Your task to perform on an android device: Search for vegetarian restaurants on Maps Image 0: 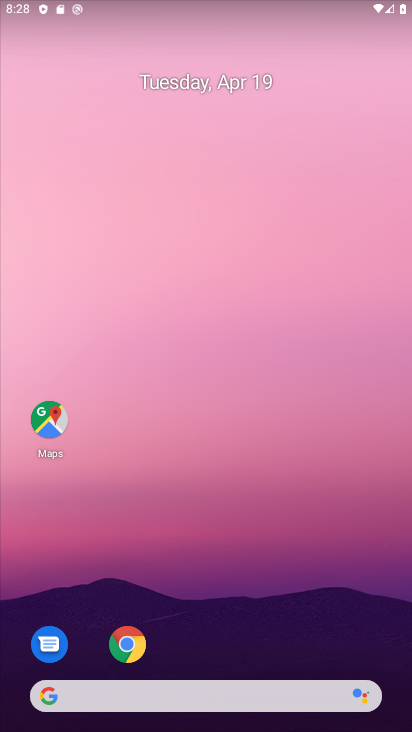
Step 0: drag from (172, 669) to (248, 122)
Your task to perform on an android device: Search for vegetarian restaurants on Maps Image 1: 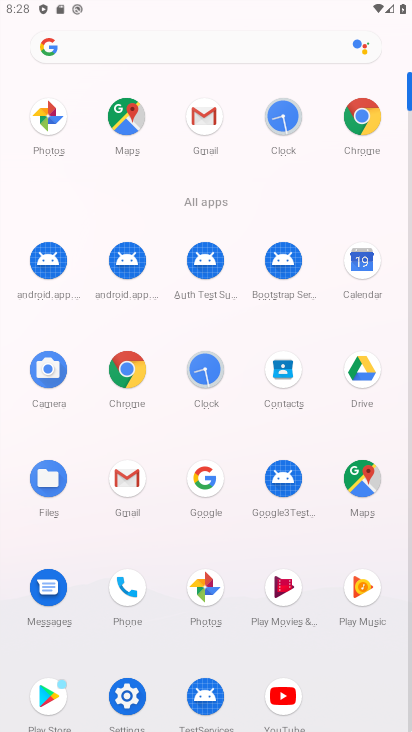
Step 1: click (354, 491)
Your task to perform on an android device: Search for vegetarian restaurants on Maps Image 2: 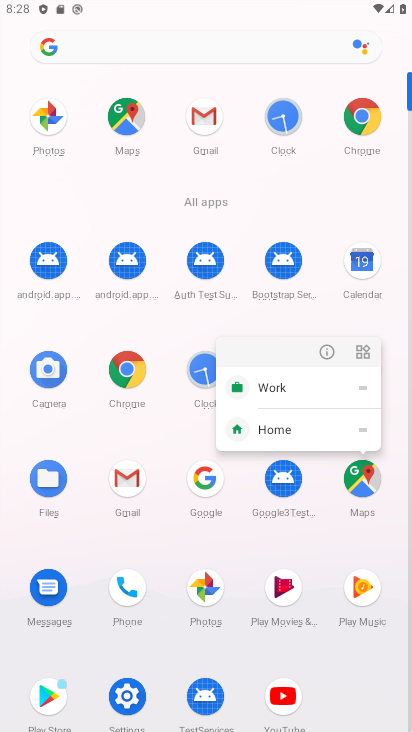
Step 2: click (365, 488)
Your task to perform on an android device: Search for vegetarian restaurants on Maps Image 3: 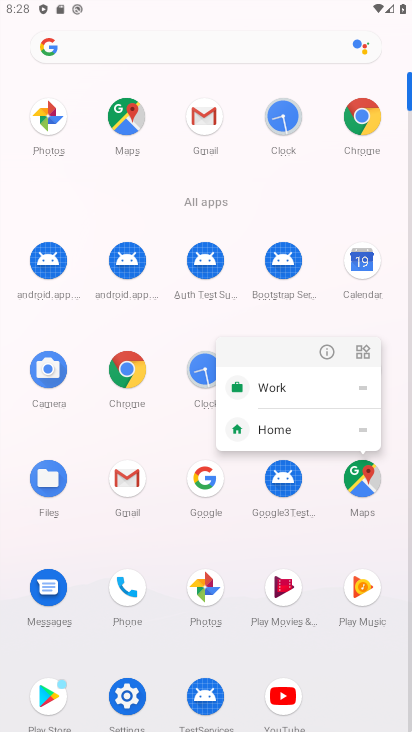
Step 3: click (368, 472)
Your task to perform on an android device: Search for vegetarian restaurants on Maps Image 4: 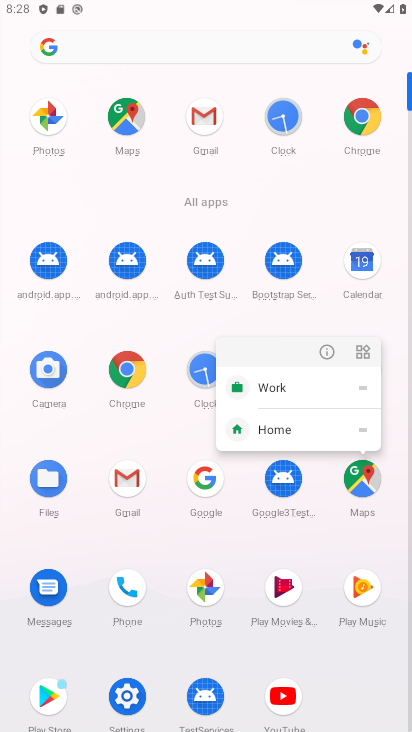
Step 4: click (363, 493)
Your task to perform on an android device: Search for vegetarian restaurants on Maps Image 5: 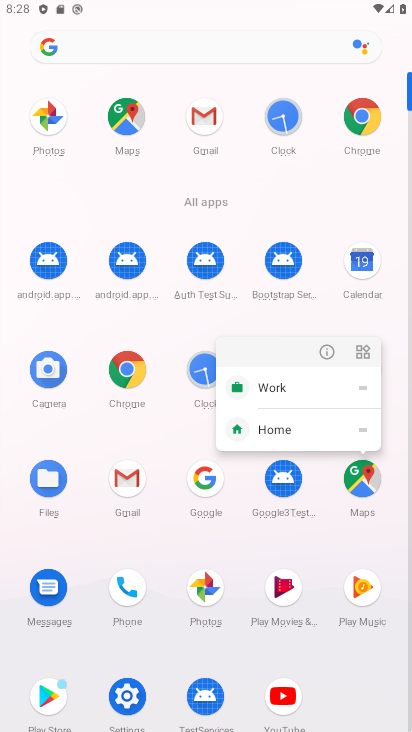
Step 5: click (358, 478)
Your task to perform on an android device: Search for vegetarian restaurants on Maps Image 6: 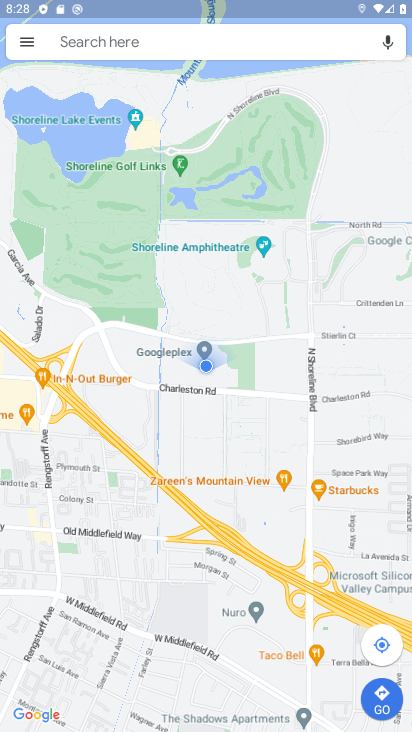
Step 6: click (144, 40)
Your task to perform on an android device: Search for vegetarian restaurants on Maps Image 7: 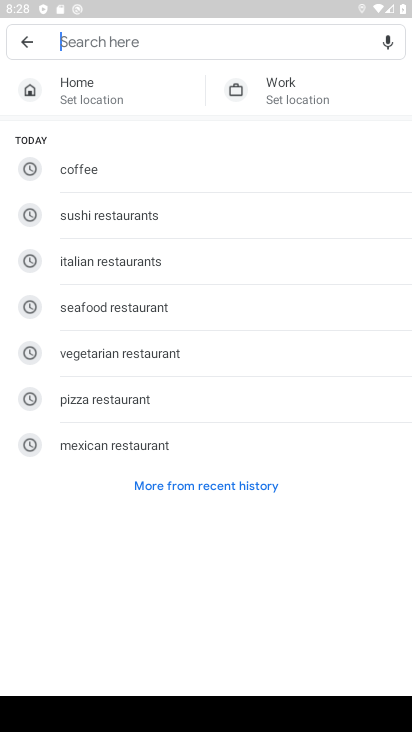
Step 7: type "vegetarian restaurants "
Your task to perform on an android device: Search for vegetarian restaurants on Maps Image 8: 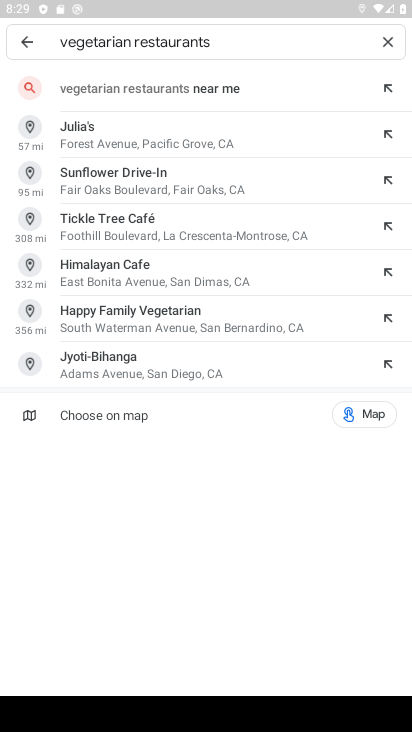
Step 8: click (295, 96)
Your task to perform on an android device: Search for vegetarian restaurants on Maps Image 9: 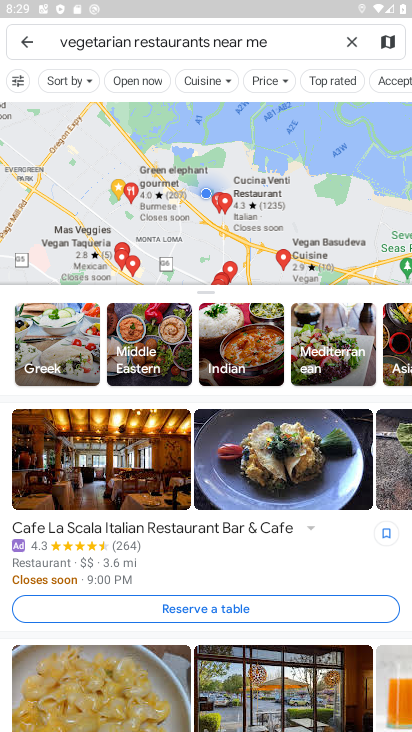
Step 9: task complete